Your task to perform on an android device: create a new album in the google photos Image 0: 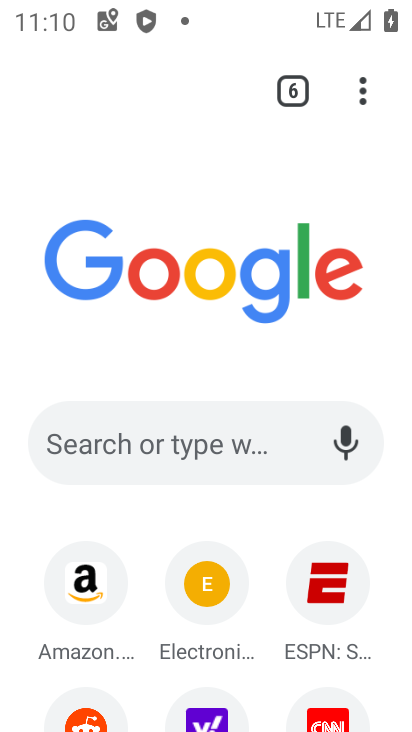
Step 0: press home button
Your task to perform on an android device: create a new album in the google photos Image 1: 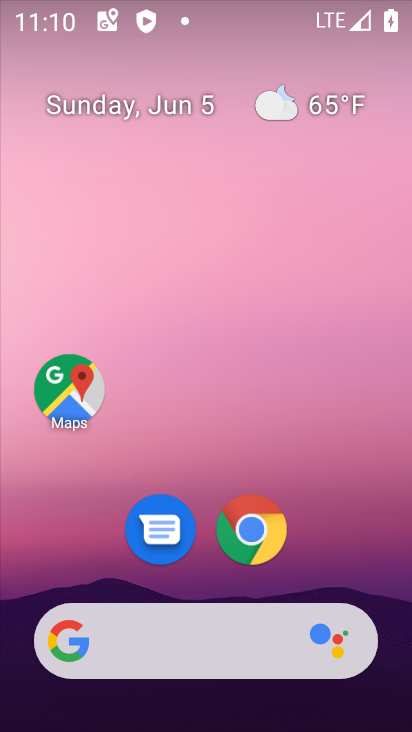
Step 1: drag from (207, 722) to (307, 92)
Your task to perform on an android device: create a new album in the google photos Image 2: 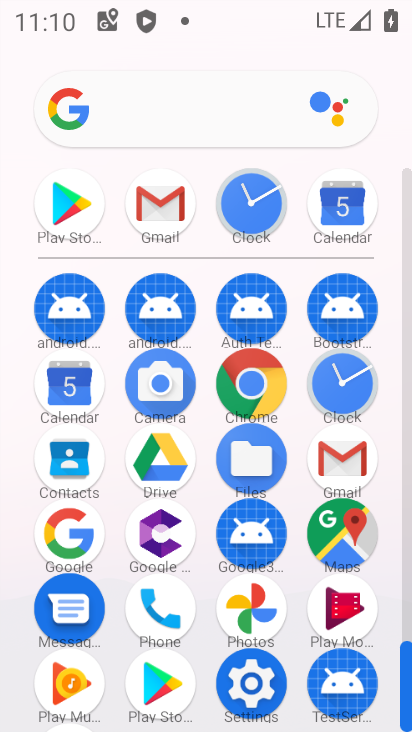
Step 2: click (240, 588)
Your task to perform on an android device: create a new album in the google photos Image 3: 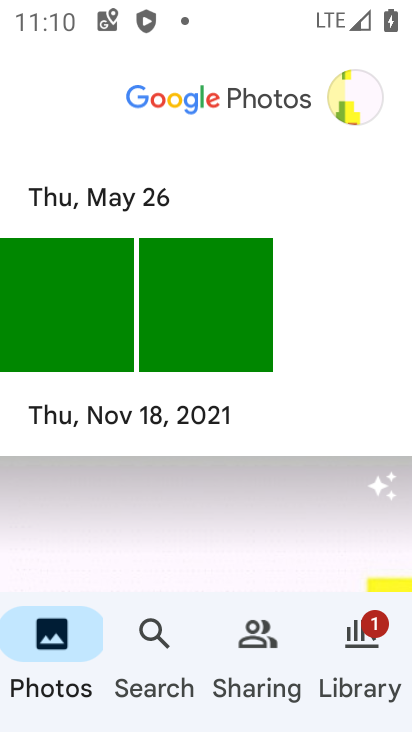
Step 3: click (204, 351)
Your task to perform on an android device: create a new album in the google photos Image 4: 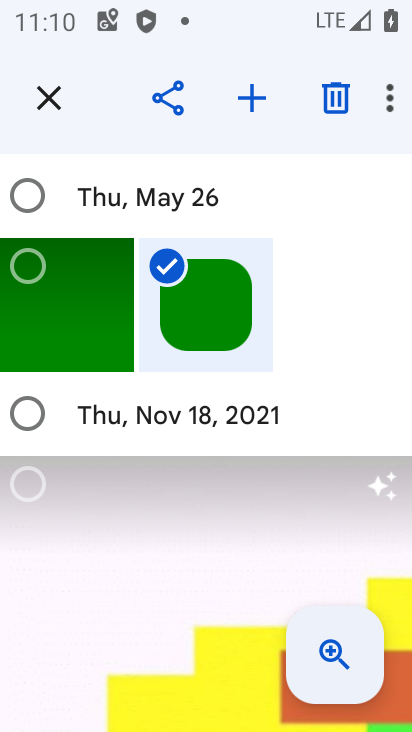
Step 4: click (259, 91)
Your task to perform on an android device: create a new album in the google photos Image 5: 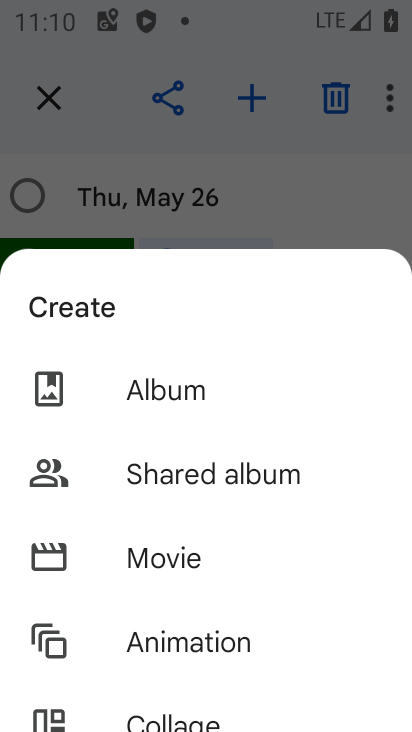
Step 5: click (258, 387)
Your task to perform on an android device: create a new album in the google photos Image 6: 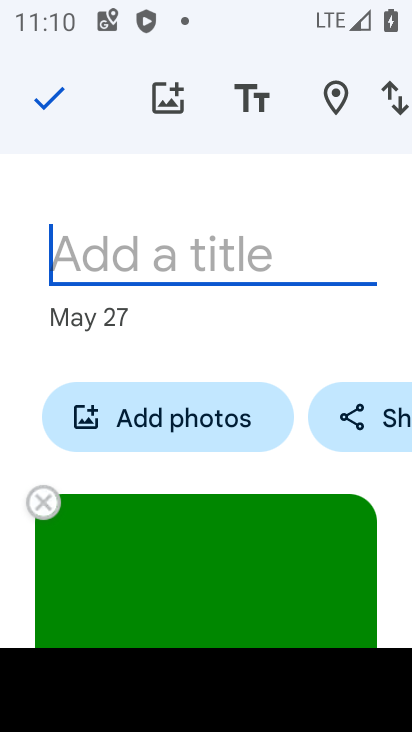
Step 6: type "mn,bm "
Your task to perform on an android device: create a new album in the google photos Image 7: 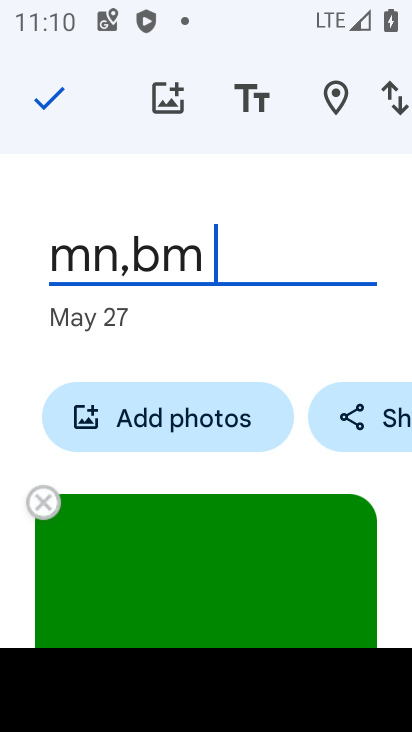
Step 7: click (29, 89)
Your task to perform on an android device: create a new album in the google photos Image 8: 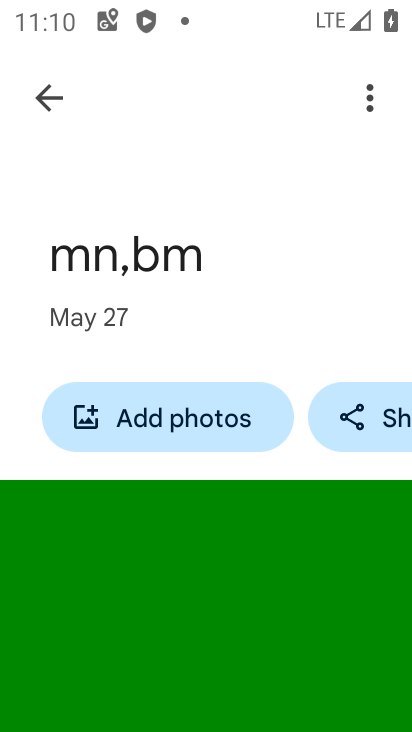
Step 8: task complete